Your task to perform on an android device: Open Google Chrome Image 0: 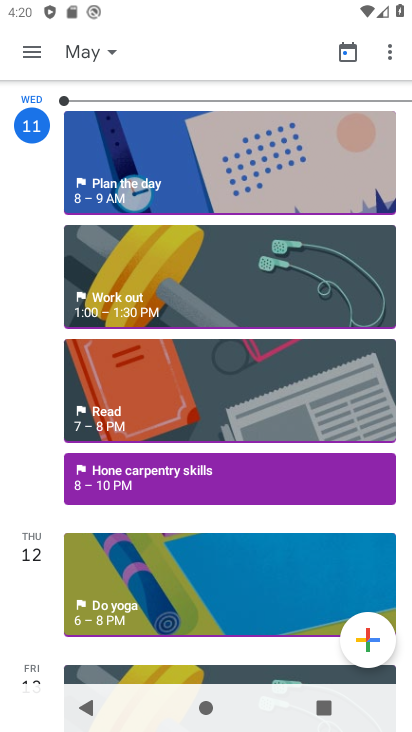
Step 0: press home button
Your task to perform on an android device: Open Google Chrome Image 1: 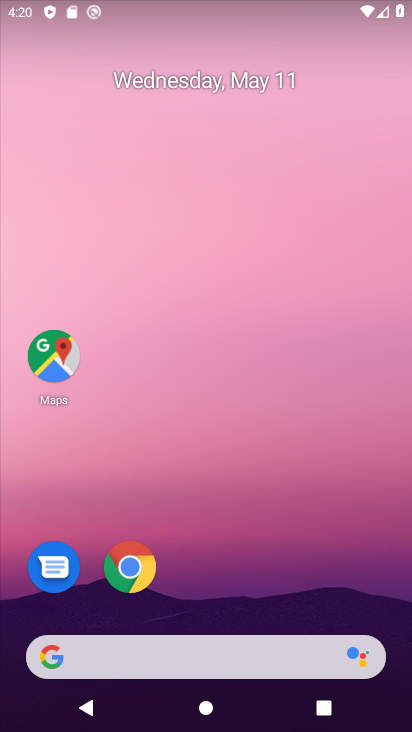
Step 1: click (130, 564)
Your task to perform on an android device: Open Google Chrome Image 2: 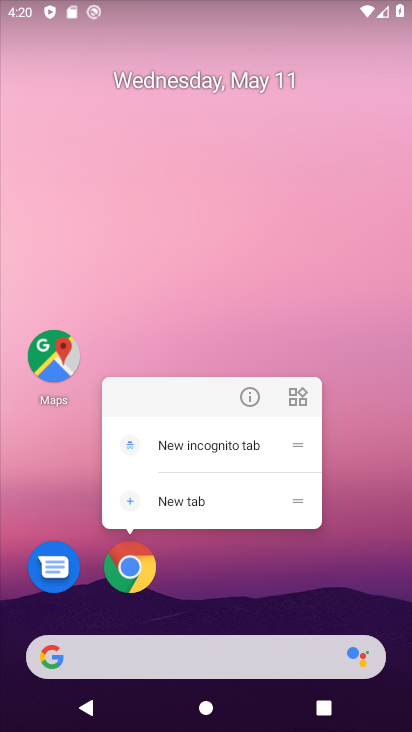
Step 2: click (139, 573)
Your task to perform on an android device: Open Google Chrome Image 3: 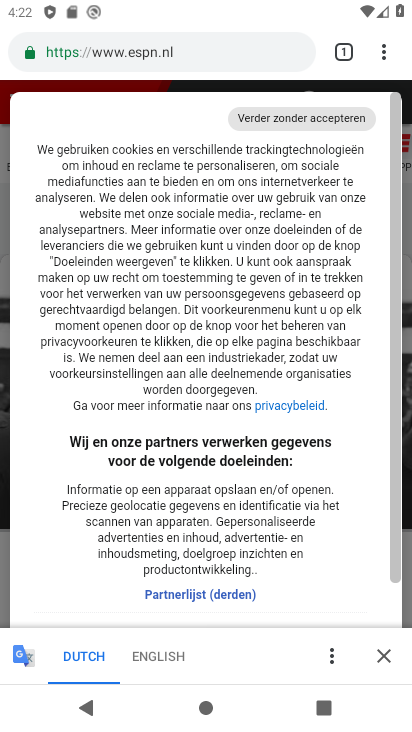
Step 3: task complete